Your task to perform on an android device: Open Chrome and go to the settings page Image 0: 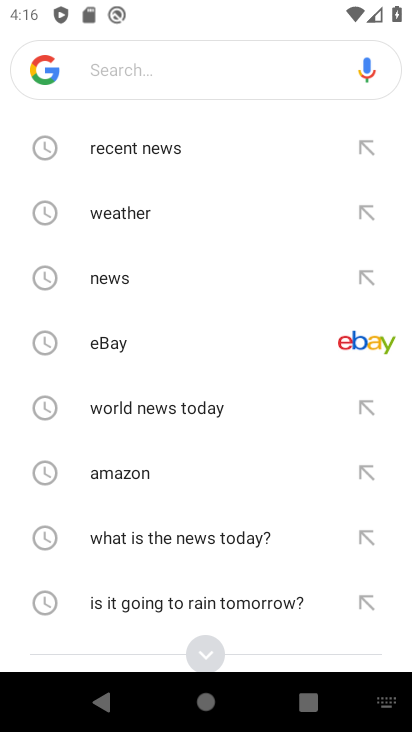
Step 0: press home button
Your task to perform on an android device: Open Chrome and go to the settings page Image 1: 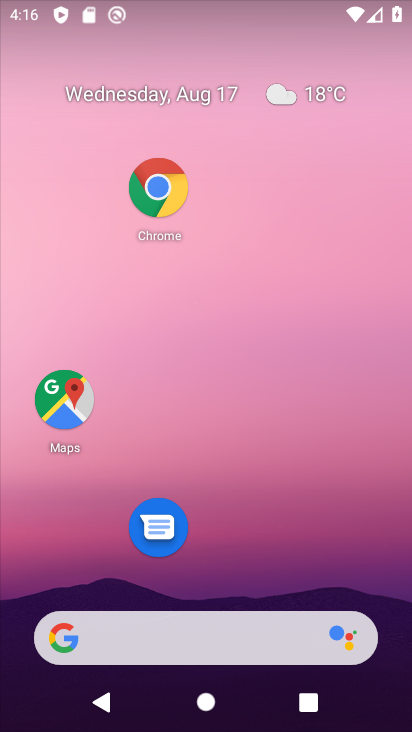
Step 1: click (166, 176)
Your task to perform on an android device: Open Chrome and go to the settings page Image 2: 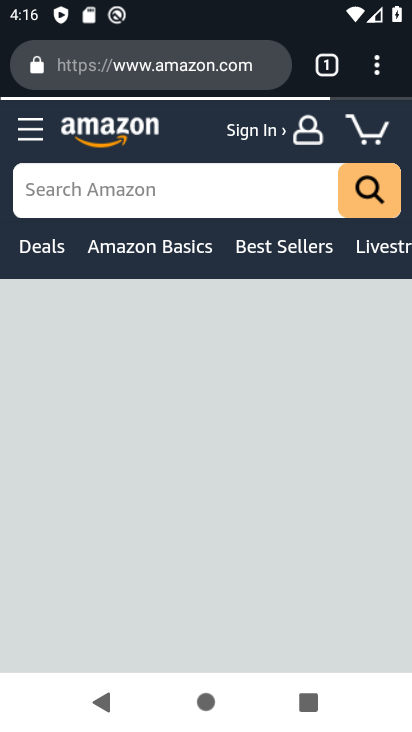
Step 2: click (385, 74)
Your task to perform on an android device: Open Chrome and go to the settings page Image 3: 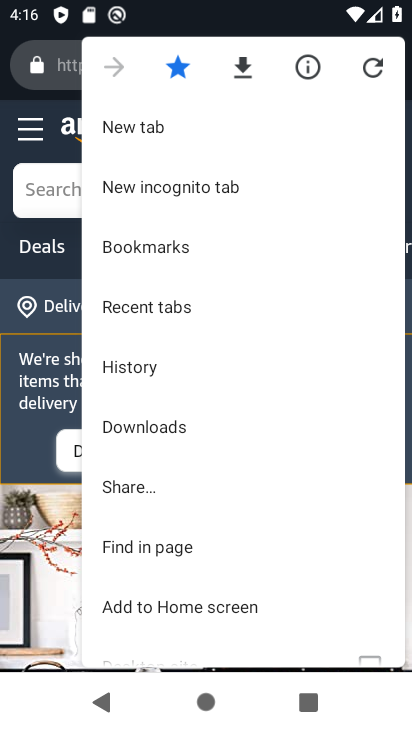
Step 3: drag from (199, 575) to (255, 166)
Your task to perform on an android device: Open Chrome and go to the settings page Image 4: 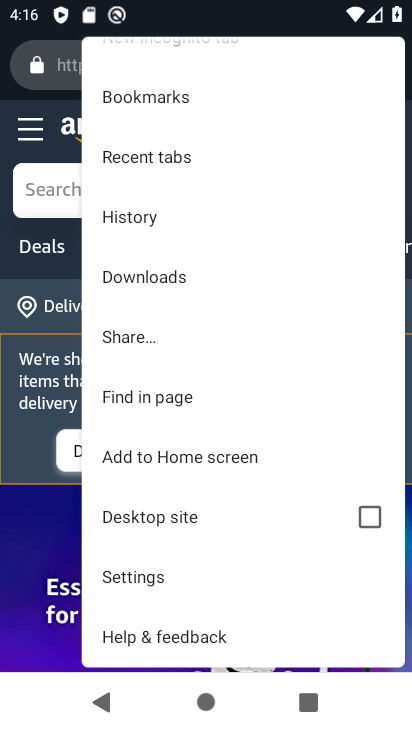
Step 4: click (147, 571)
Your task to perform on an android device: Open Chrome and go to the settings page Image 5: 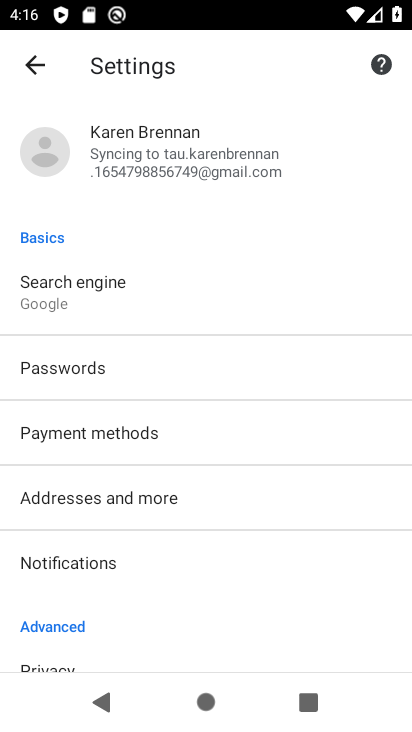
Step 5: task complete